Your task to perform on an android device: Go to Reddit.com Image 0: 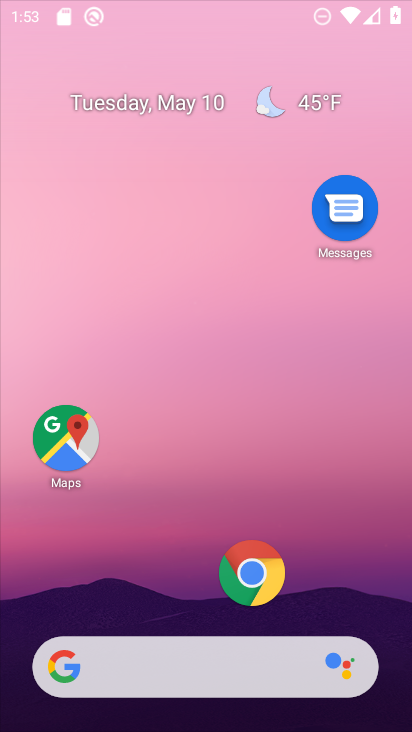
Step 0: click (290, 232)
Your task to perform on an android device: Go to Reddit.com Image 1: 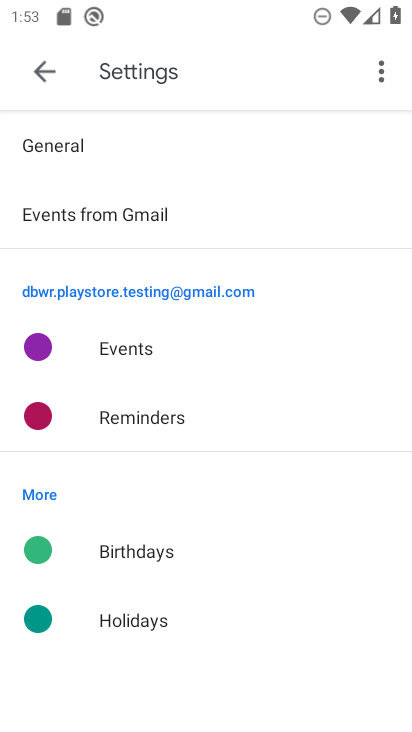
Step 1: press home button
Your task to perform on an android device: Go to Reddit.com Image 2: 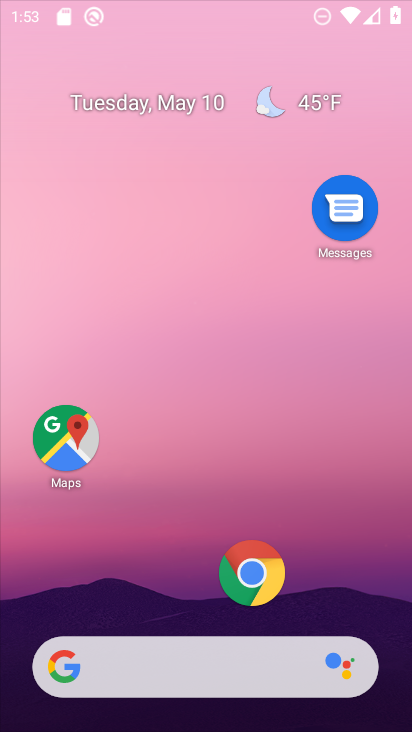
Step 2: drag from (183, 665) to (279, 166)
Your task to perform on an android device: Go to Reddit.com Image 3: 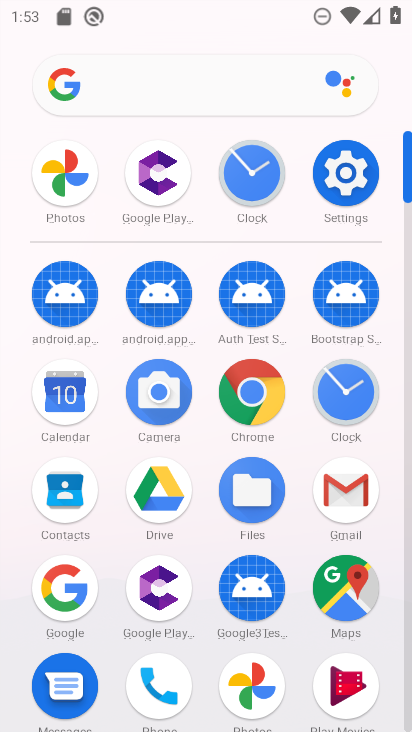
Step 3: click (218, 93)
Your task to perform on an android device: Go to Reddit.com Image 4: 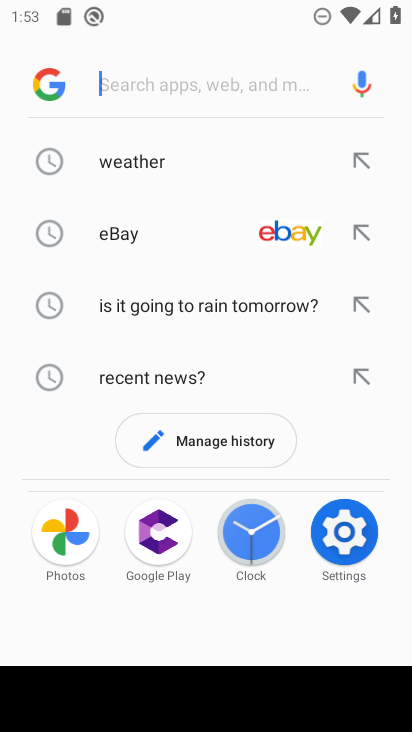
Step 4: type "reddit.com"
Your task to perform on an android device: Go to Reddit.com Image 5: 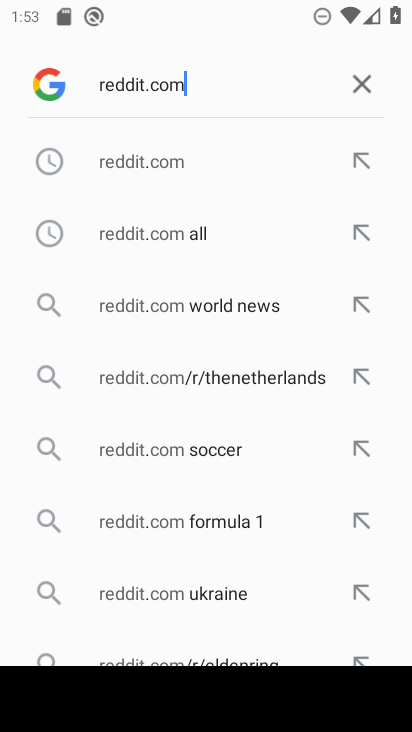
Step 5: click (192, 173)
Your task to perform on an android device: Go to Reddit.com Image 6: 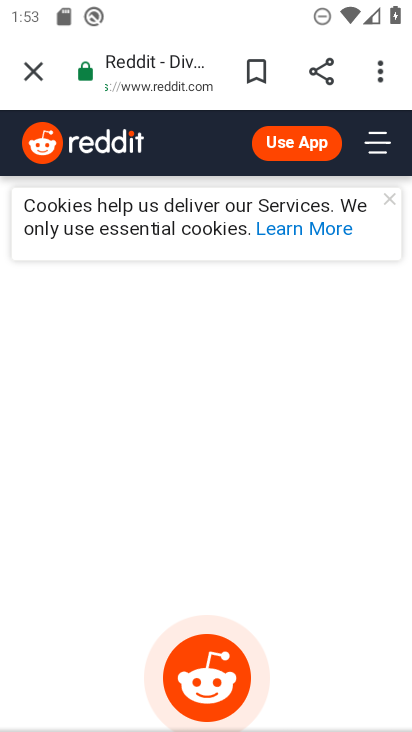
Step 6: task complete